Your task to perform on an android device: turn on the 12-hour format for clock Image 0: 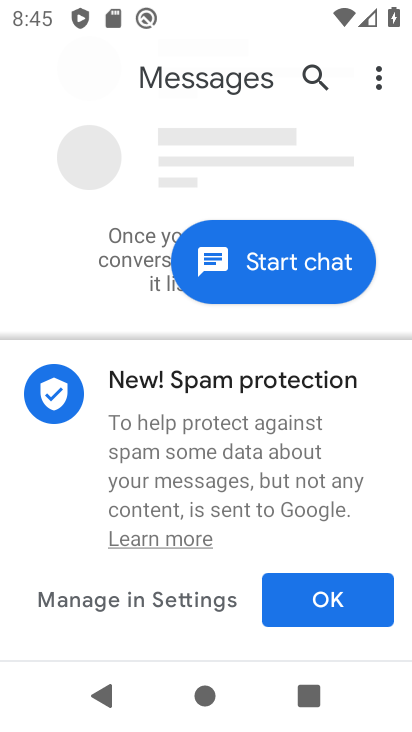
Step 0: press home button
Your task to perform on an android device: turn on the 12-hour format for clock Image 1: 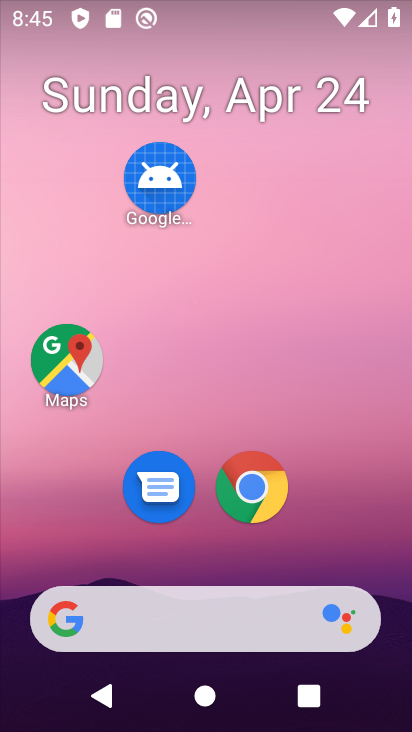
Step 1: drag from (300, 328) to (296, 87)
Your task to perform on an android device: turn on the 12-hour format for clock Image 2: 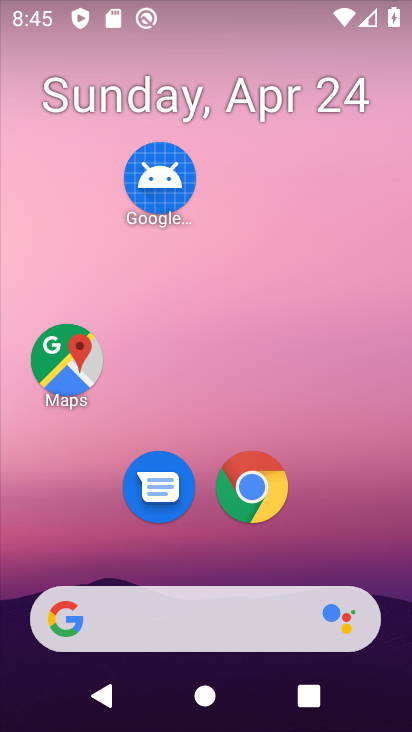
Step 2: drag from (329, 533) to (318, 155)
Your task to perform on an android device: turn on the 12-hour format for clock Image 3: 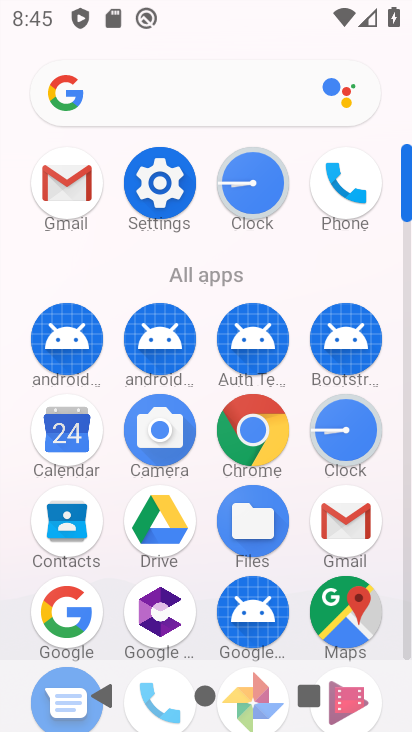
Step 3: click (241, 201)
Your task to perform on an android device: turn on the 12-hour format for clock Image 4: 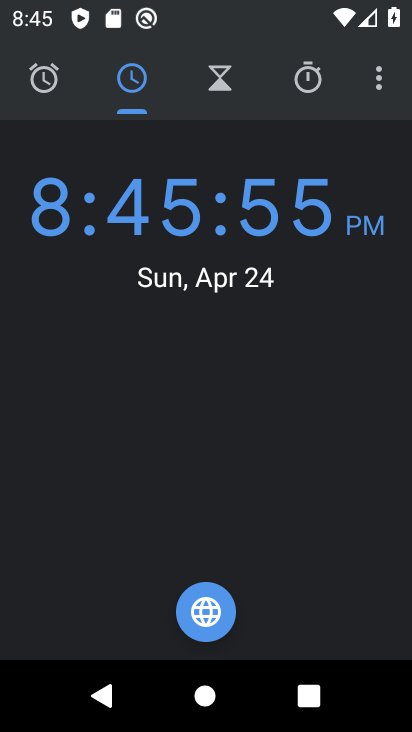
Step 4: click (378, 77)
Your task to perform on an android device: turn on the 12-hour format for clock Image 5: 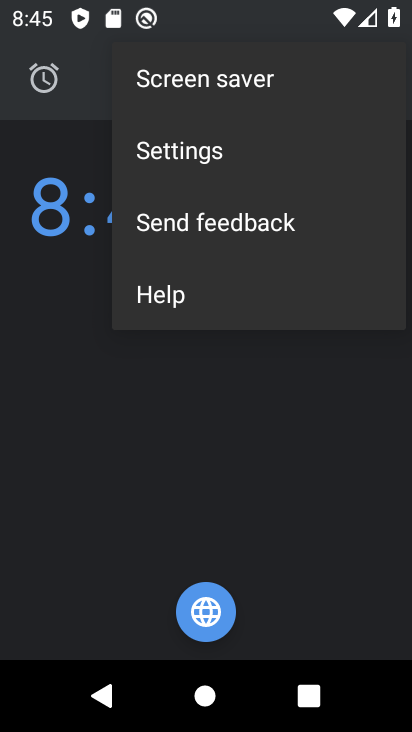
Step 5: click (180, 158)
Your task to perform on an android device: turn on the 12-hour format for clock Image 6: 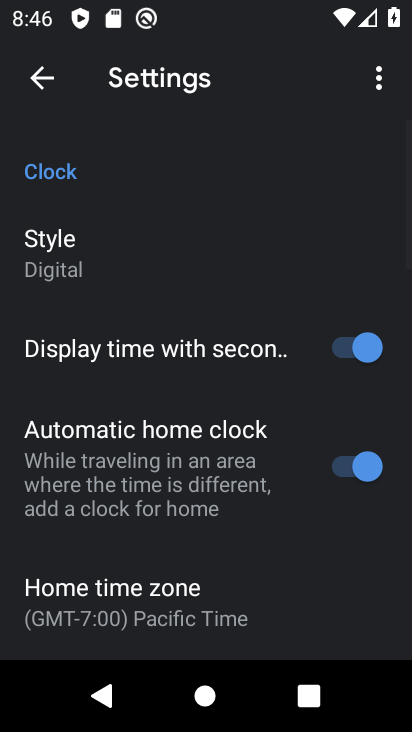
Step 6: drag from (226, 527) to (214, 291)
Your task to perform on an android device: turn on the 12-hour format for clock Image 7: 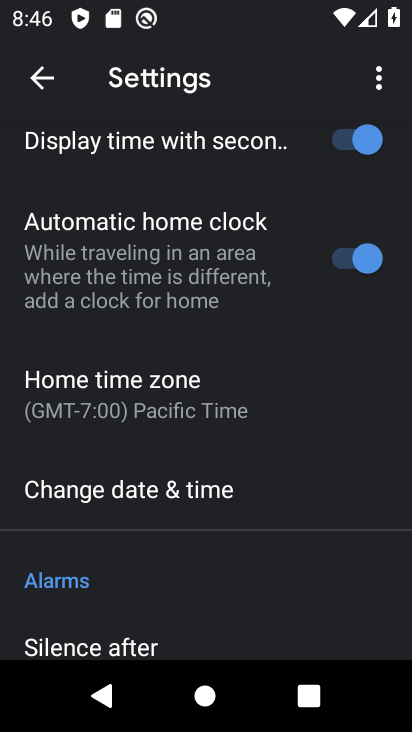
Step 7: click (200, 495)
Your task to perform on an android device: turn on the 12-hour format for clock Image 8: 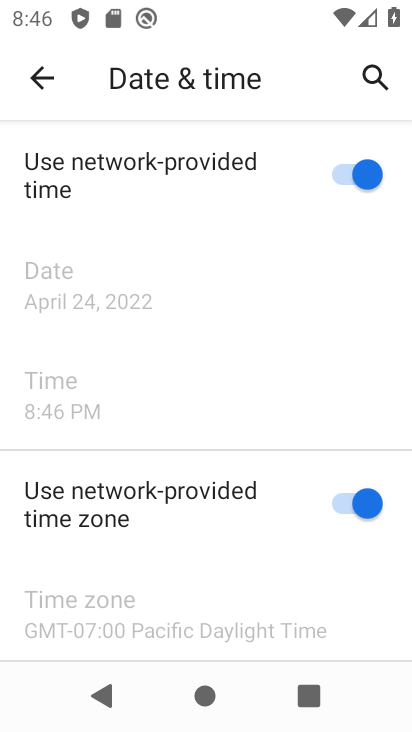
Step 8: task complete